Your task to perform on an android device: How big is a dinosaur? Image 0: 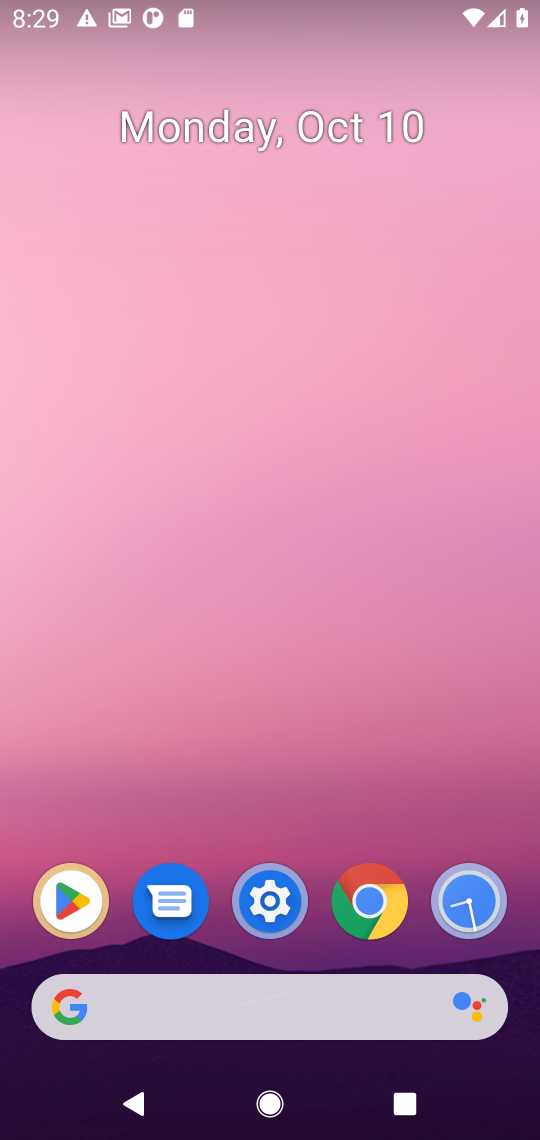
Step 0: click (383, 1013)
Your task to perform on an android device: How big is a dinosaur? Image 1: 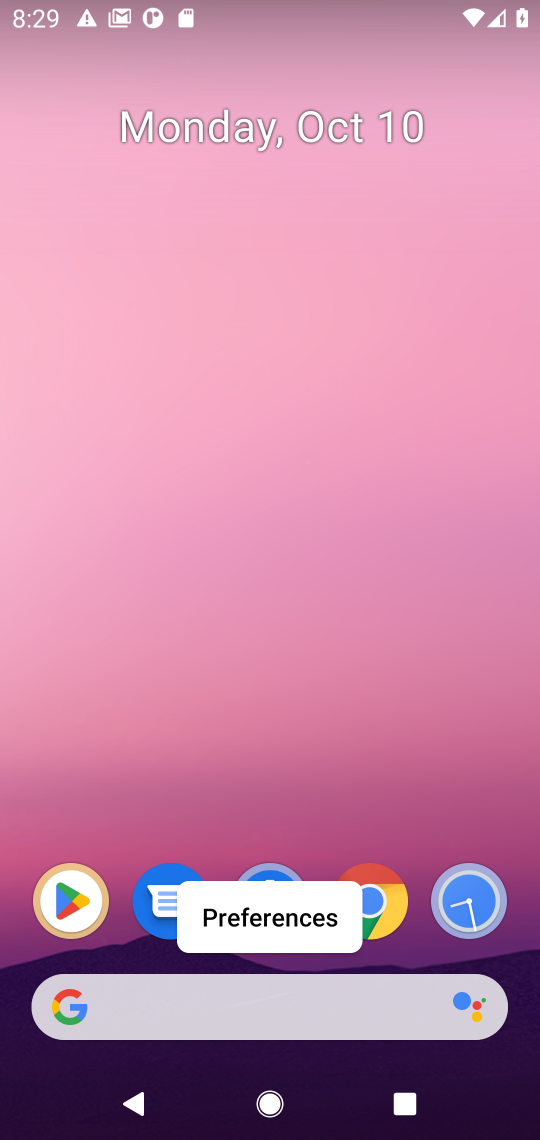
Step 1: click (213, 1005)
Your task to perform on an android device: How big is a dinosaur? Image 2: 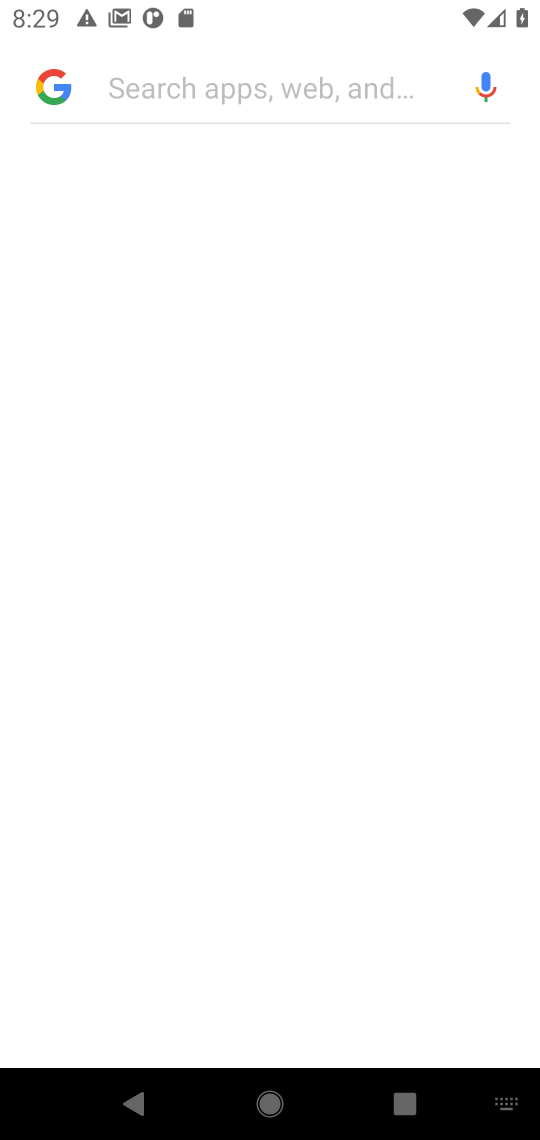
Step 2: type "How big is a dinosaur"
Your task to perform on an android device: How big is a dinosaur? Image 3: 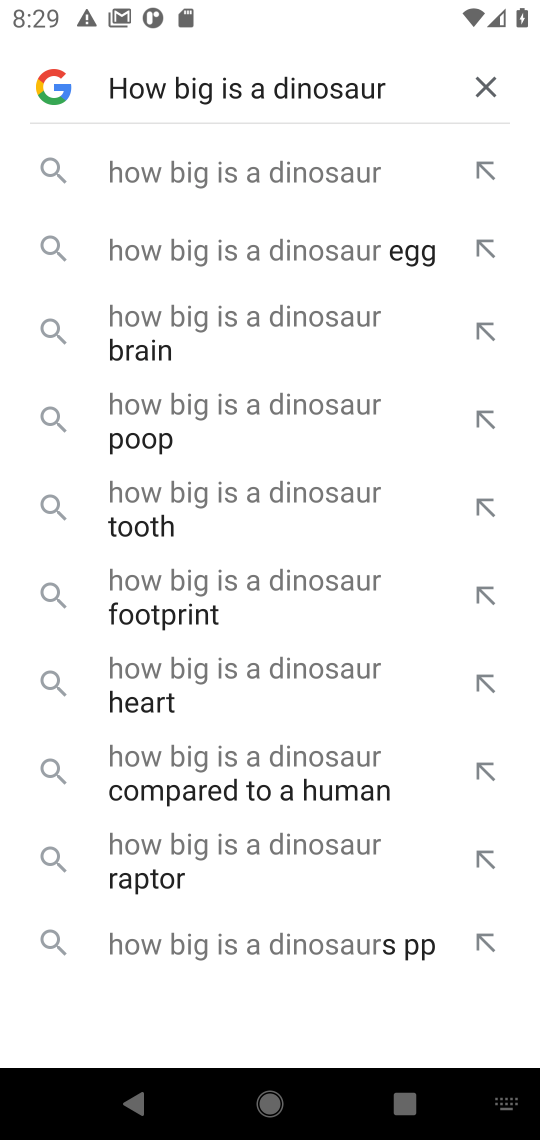
Step 3: press enter
Your task to perform on an android device: How big is a dinosaur? Image 4: 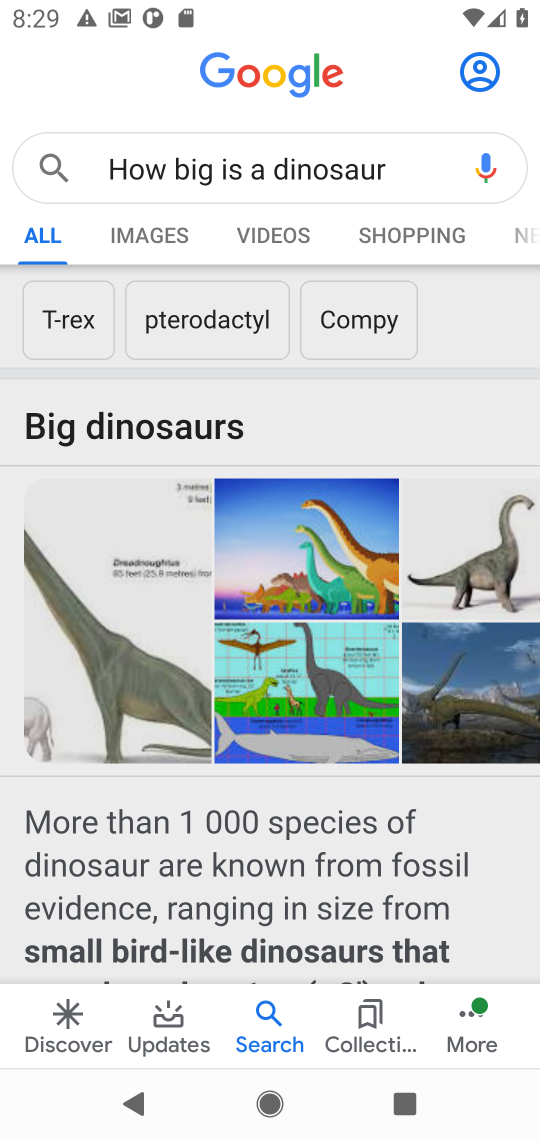
Step 4: task complete